Your task to perform on an android device: make emails show in primary in the gmail app Image 0: 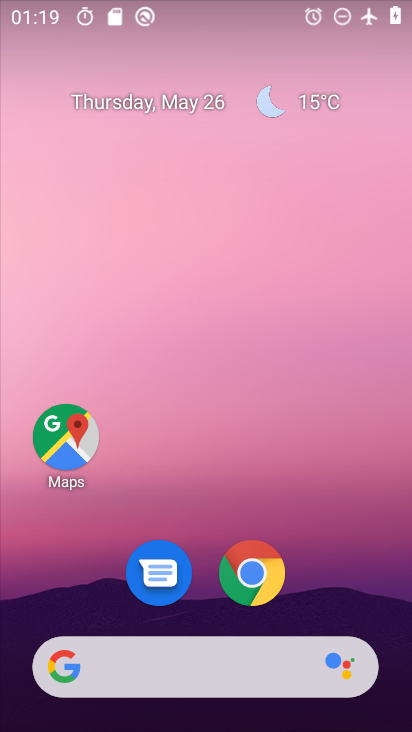
Step 0: drag from (354, 613) to (401, 8)
Your task to perform on an android device: make emails show in primary in the gmail app Image 1: 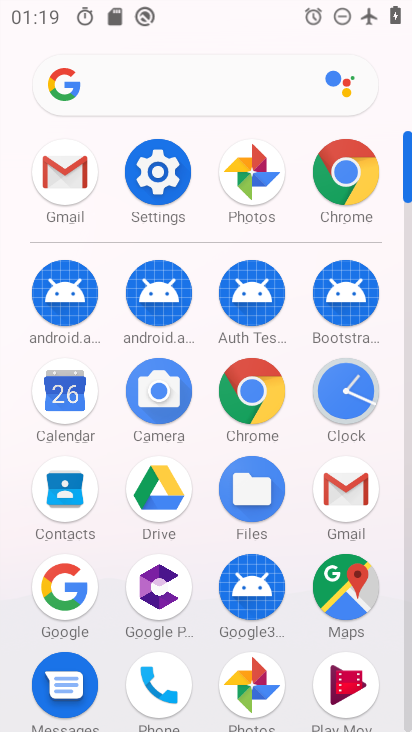
Step 1: click (58, 180)
Your task to perform on an android device: make emails show in primary in the gmail app Image 2: 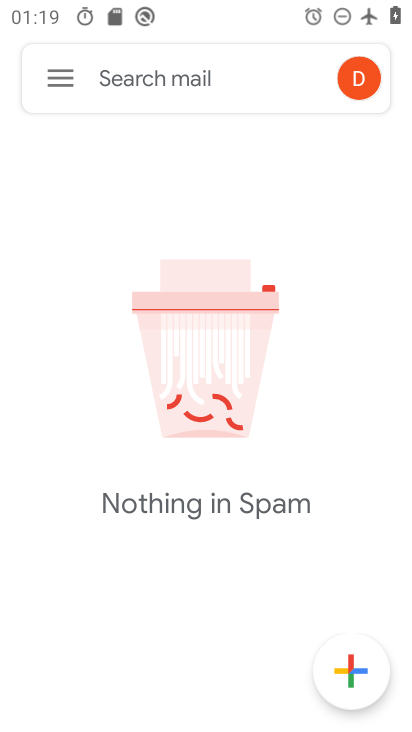
Step 2: click (58, 77)
Your task to perform on an android device: make emails show in primary in the gmail app Image 3: 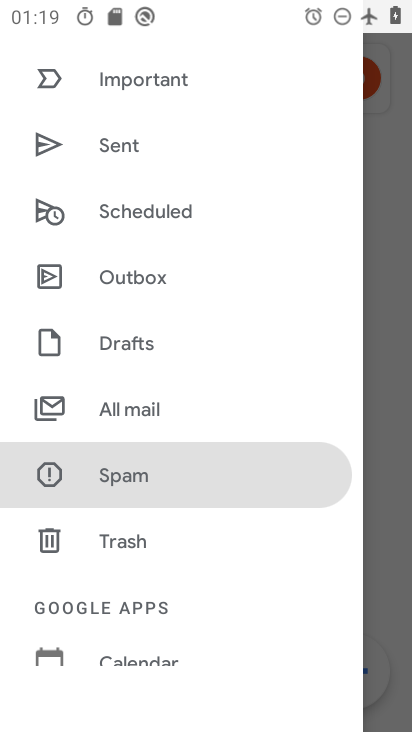
Step 3: drag from (240, 524) to (170, 57)
Your task to perform on an android device: make emails show in primary in the gmail app Image 4: 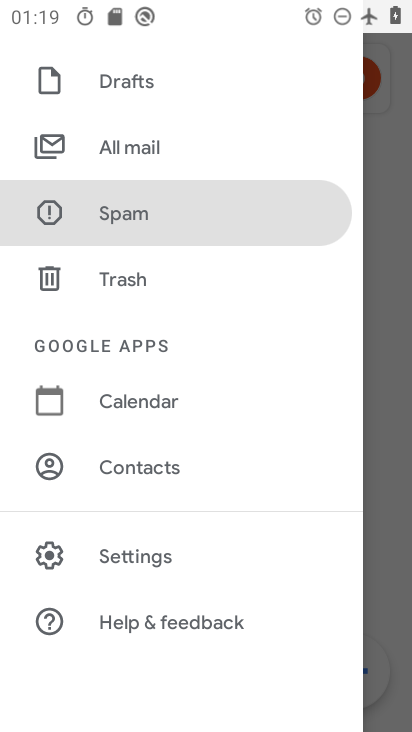
Step 4: click (121, 558)
Your task to perform on an android device: make emails show in primary in the gmail app Image 5: 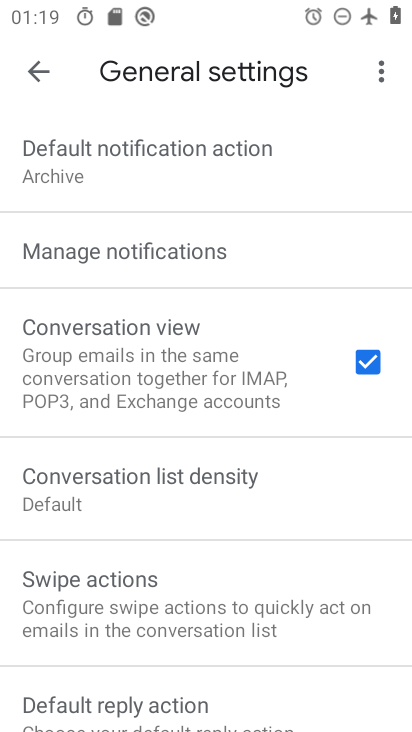
Step 5: click (23, 67)
Your task to perform on an android device: make emails show in primary in the gmail app Image 6: 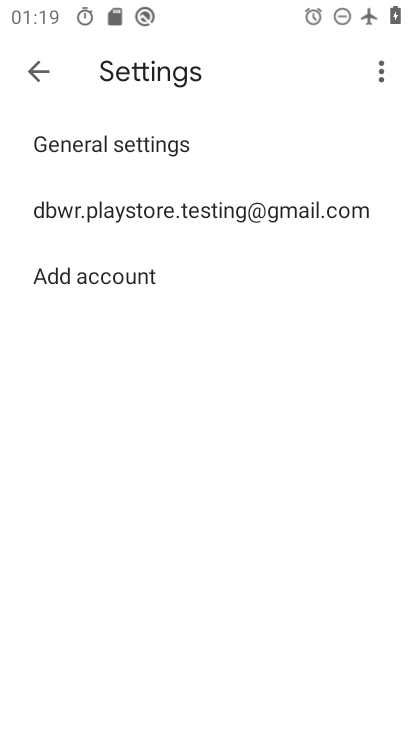
Step 6: click (87, 208)
Your task to perform on an android device: make emails show in primary in the gmail app Image 7: 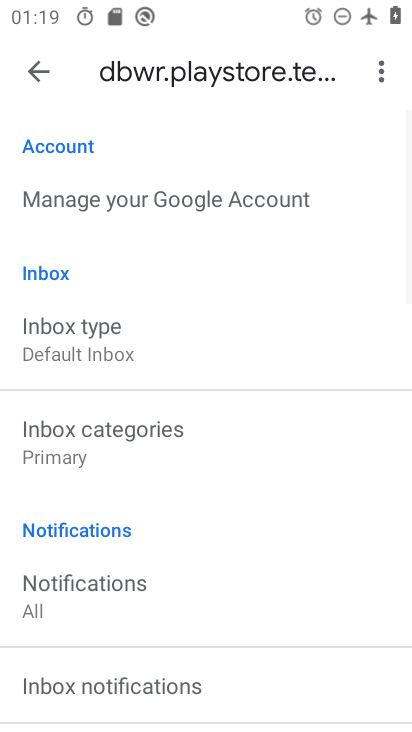
Step 7: click (94, 431)
Your task to perform on an android device: make emails show in primary in the gmail app Image 8: 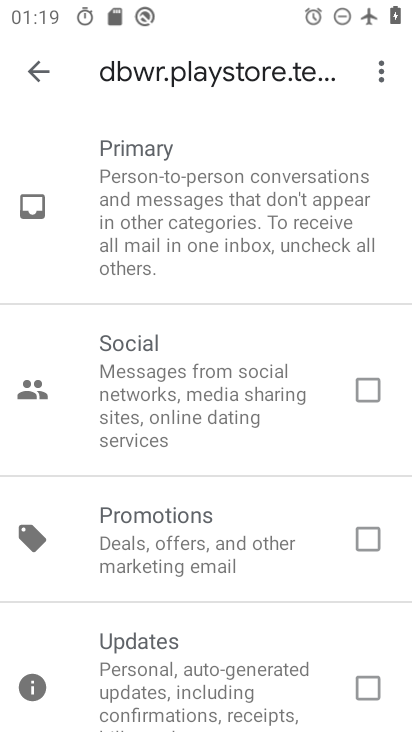
Step 8: task complete